Your task to perform on an android device: turn on airplane mode Image 0: 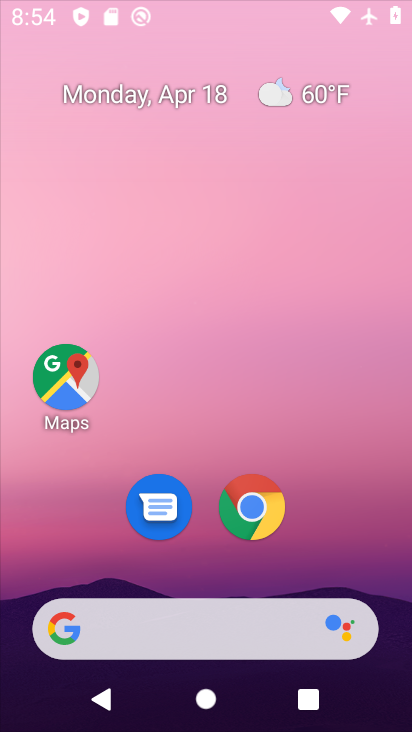
Step 0: click (275, 505)
Your task to perform on an android device: turn on airplane mode Image 1: 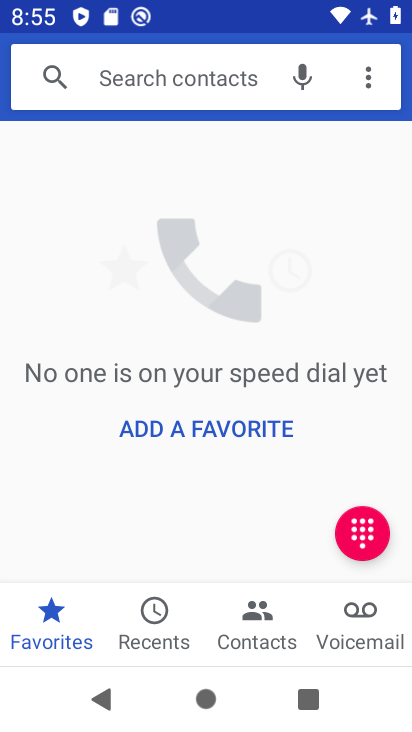
Step 1: press home button
Your task to perform on an android device: turn on airplane mode Image 2: 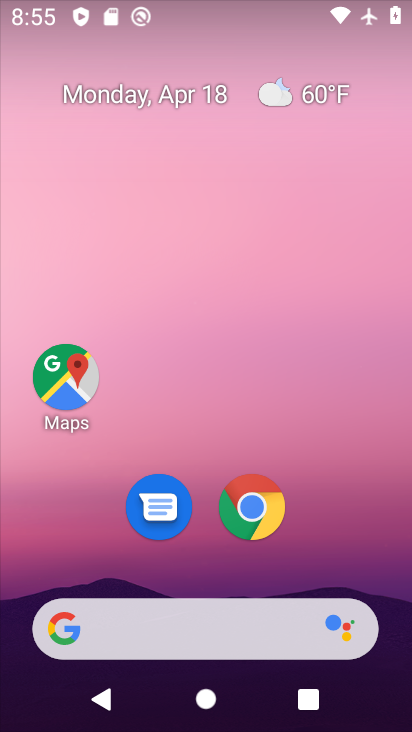
Step 2: drag from (345, 456) to (325, 51)
Your task to perform on an android device: turn on airplane mode Image 3: 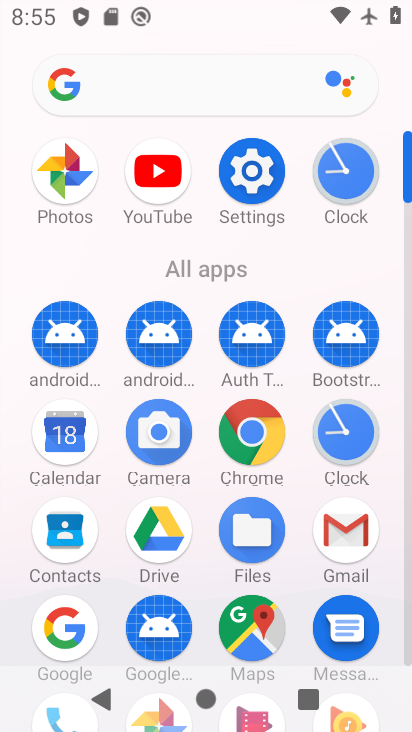
Step 3: click (260, 193)
Your task to perform on an android device: turn on airplane mode Image 4: 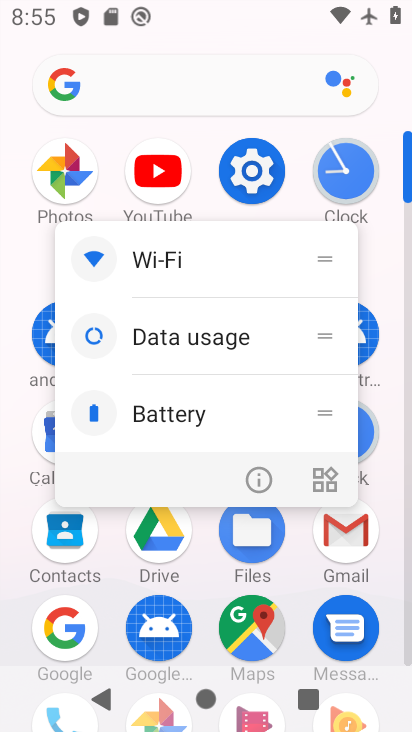
Step 4: click (255, 166)
Your task to perform on an android device: turn on airplane mode Image 5: 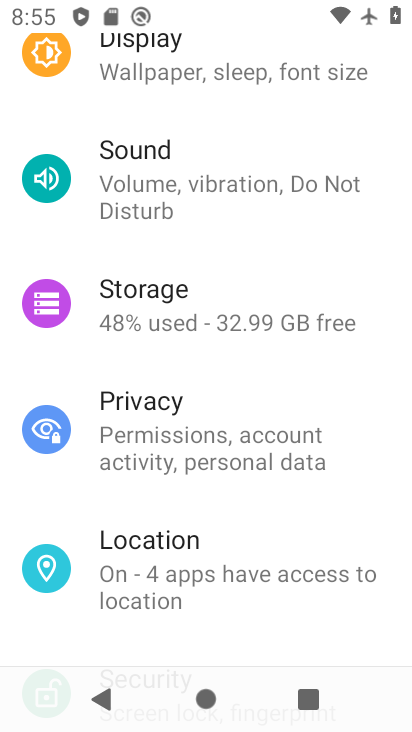
Step 5: drag from (278, 172) to (310, 577)
Your task to perform on an android device: turn on airplane mode Image 6: 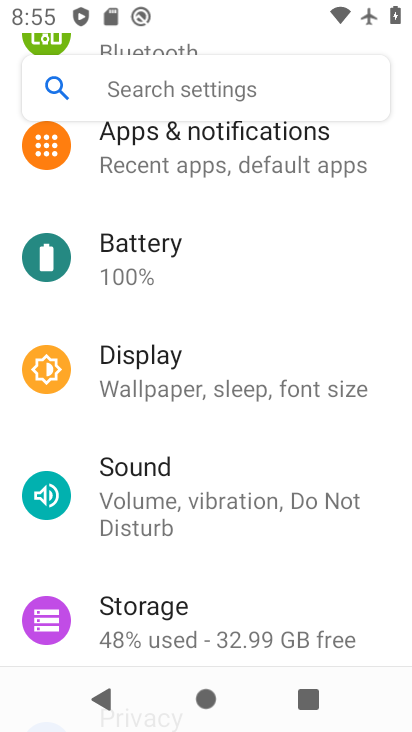
Step 6: drag from (287, 212) to (315, 635)
Your task to perform on an android device: turn on airplane mode Image 7: 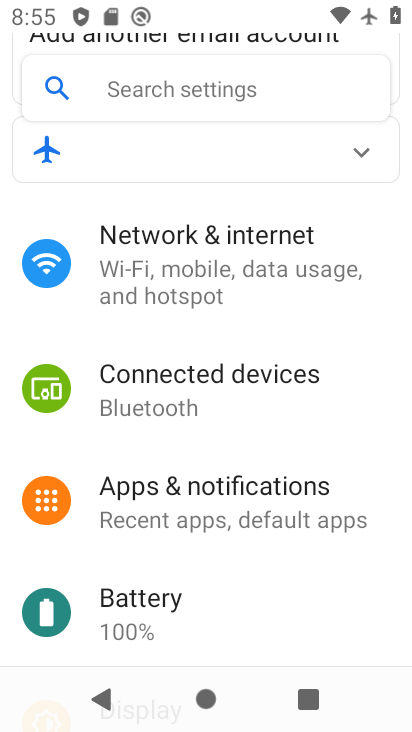
Step 7: click (285, 261)
Your task to perform on an android device: turn on airplane mode Image 8: 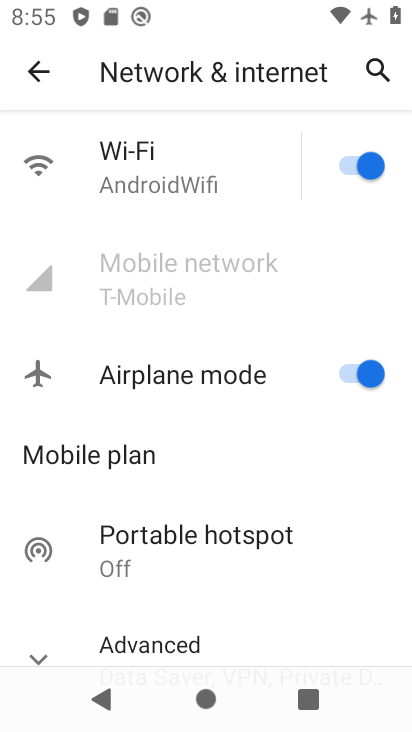
Step 8: task complete